Your task to perform on an android device: Go to notification settings Image 0: 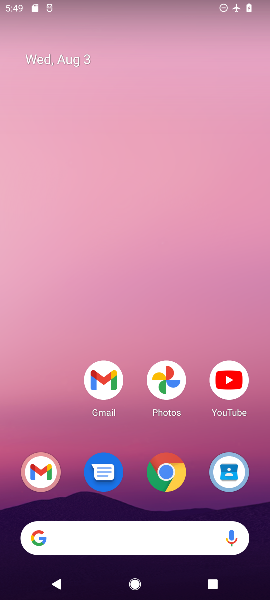
Step 0: drag from (193, 444) to (98, 49)
Your task to perform on an android device: Go to notification settings Image 1: 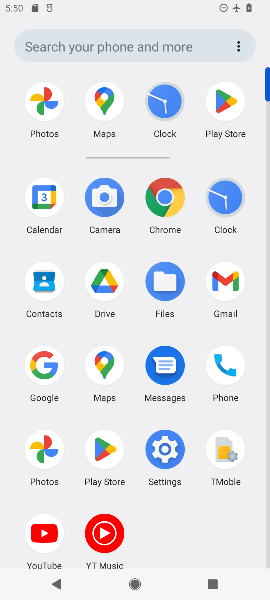
Step 1: click (168, 450)
Your task to perform on an android device: Go to notification settings Image 2: 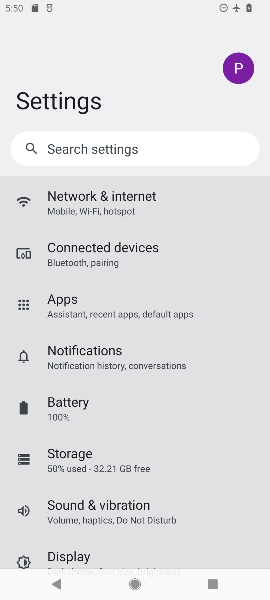
Step 2: click (101, 366)
Your task to perform on an android device: Go to notification settings Image 3: 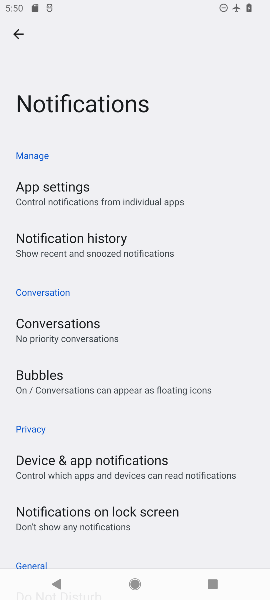
Step 3: task complete